Your task to perform on an android device: choose inbox layout in the gmail app Image 0: 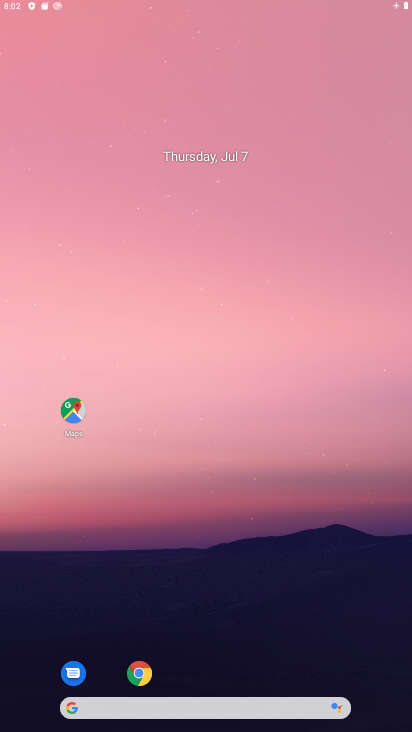
Step 0: click (176, 100)
Your task to perform on an android device: choose inbox layout in the gmail app Image 1: 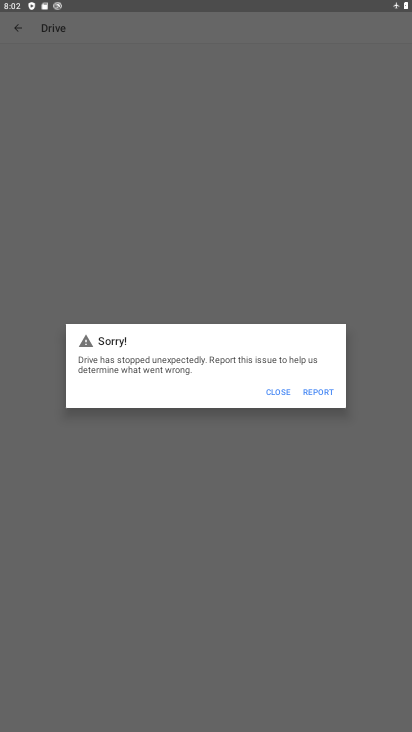
Step 1: press home button
Your task to perform on an android device: choose inbox layout in the gmail app Image 2: 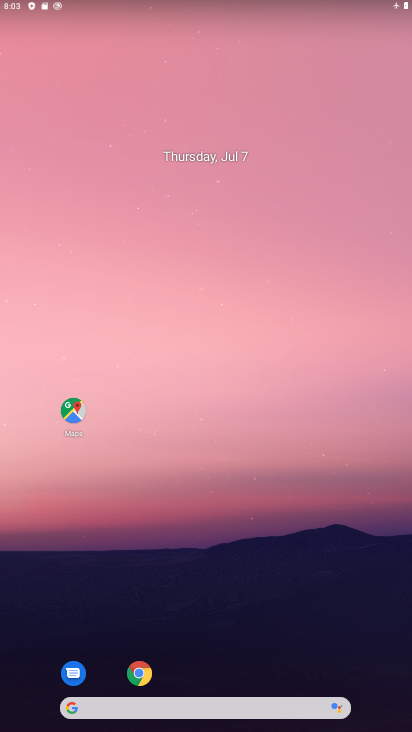
Step 2: drag from (218, 683) to (162, 29)
Your task to perform on an android device: choose inbox layout in the gmail app Image 3: 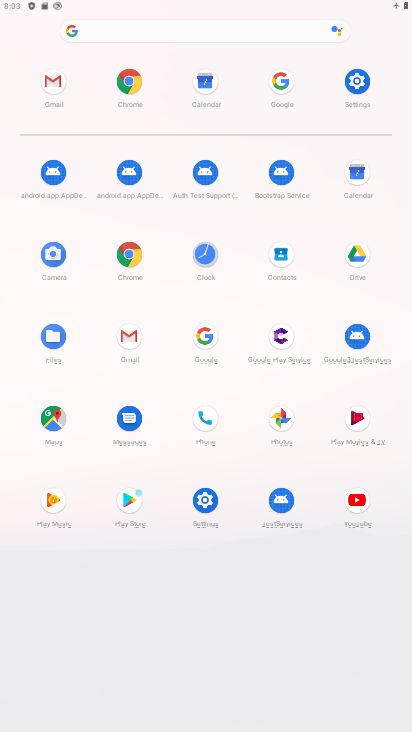
Step 3: click (130, 338)
Your task to perform on an android device: choose inbox layout in the gmail app Image 4: 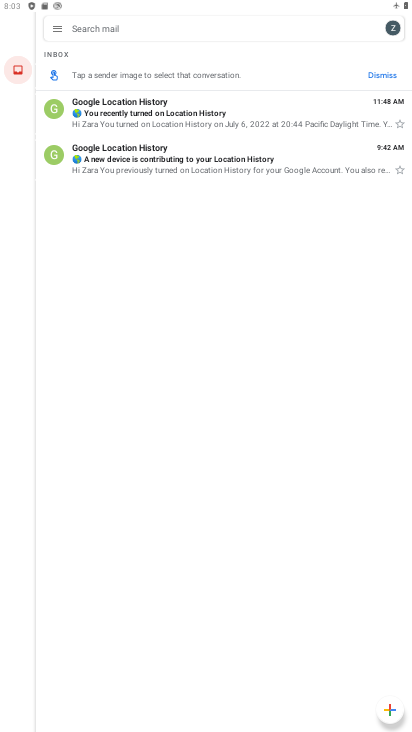
Step 4: task complete